Your task to perform on an android device: Do I have any events today? Image 0: 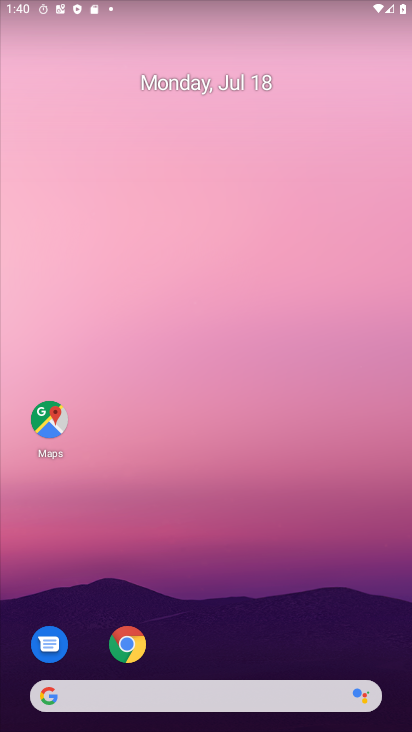
Step 0: drag from (357, 600) to (332, 4)
Your task to perform on an android device: Do I have any events today? Image 1: 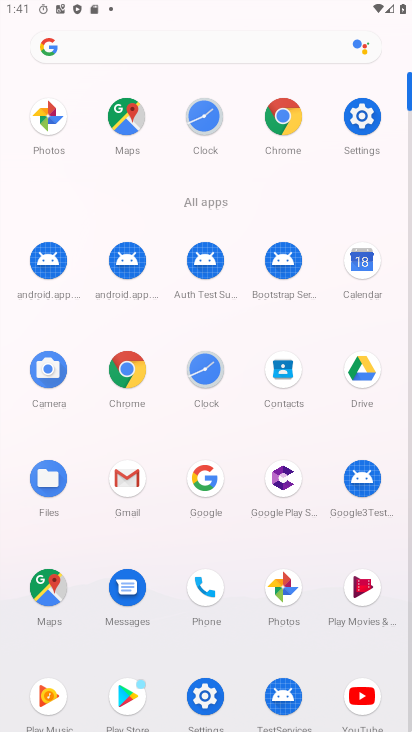
Step 1: click (355, 274)
Your task to perform on an android device: Do I have any events today? Image 2: 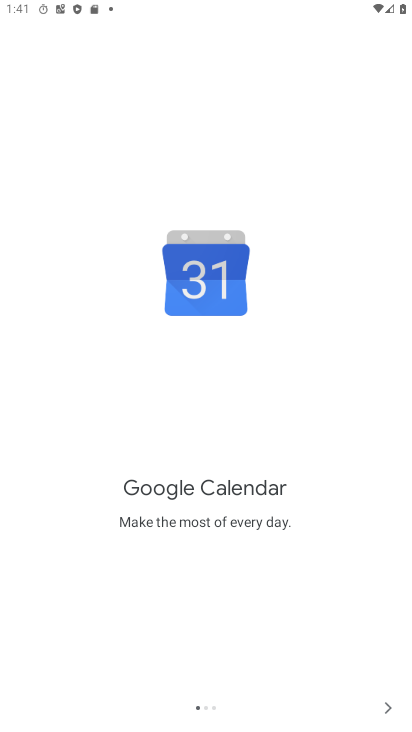
Step 2: click (390, 708)
Your task to perform on an android device: Do I have any events today? Image 3: 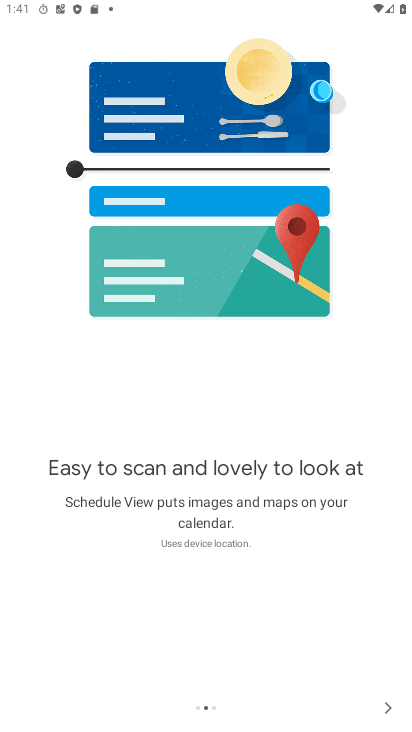
Step 3: click (390, 708)
Your task to perform on an android device: Do I have any events today? Image 4: 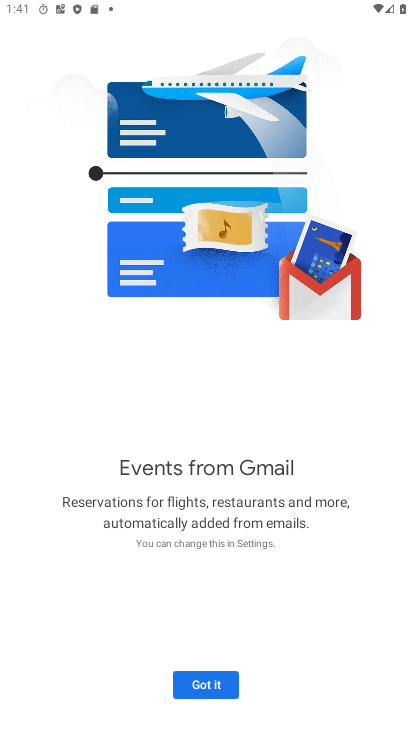
Step 4: click (187, 695)
Your task to perform on an android device: Do I have any events today? Image 5: 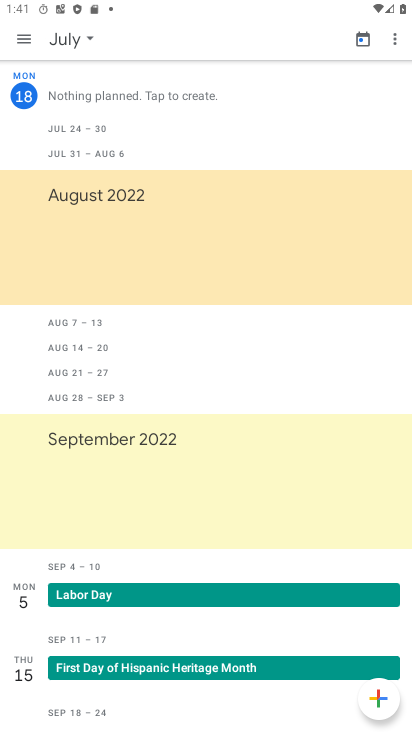
Step 5: click (79, 44)
Your task to perform on an android device: Do I have any events today? Image 6: 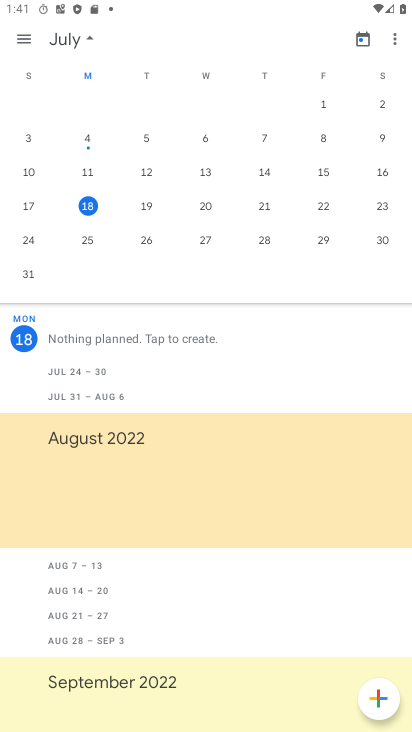
Step 6: click (91, 206)
Your task to perform on an android device: Do I have any events today? Image 7: 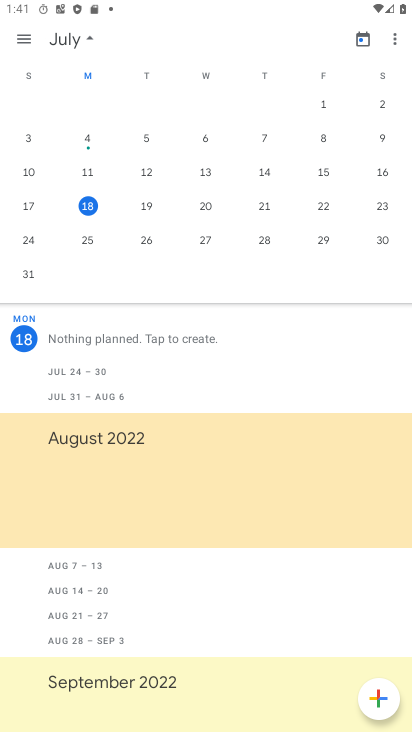
Step 7: task complete